Your task to perform on an android device: Show me popular games on the Play Store Image 0: 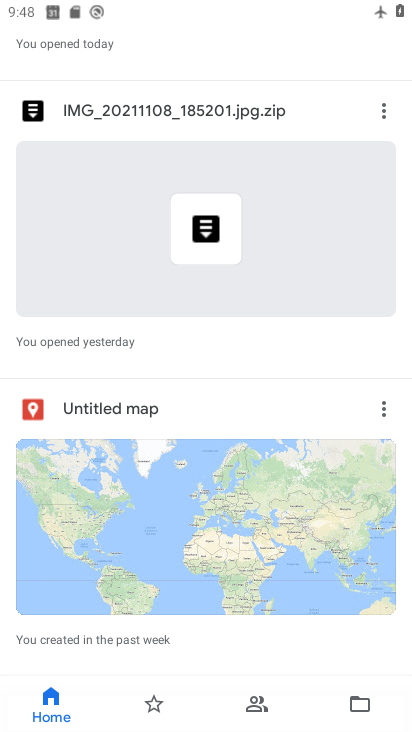
Step 0: drag from (219, 527) to (290, 138)
Your task to perform on an android device: Show me popular games on the Play Store Image 1: 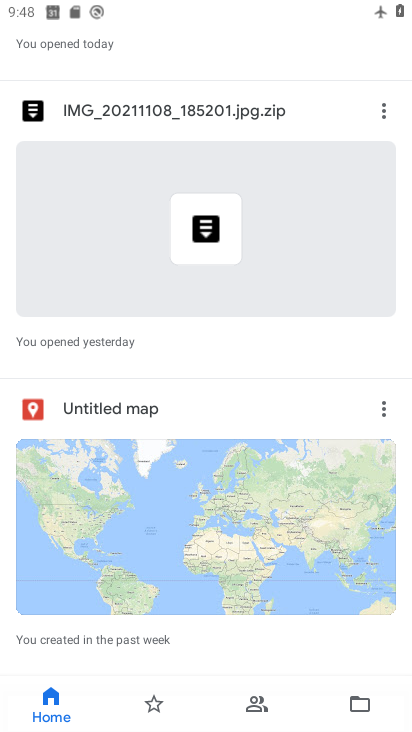
Step 1: press home button
Your task to perform on an android device: Show me popular games on the Play Store Image 2: 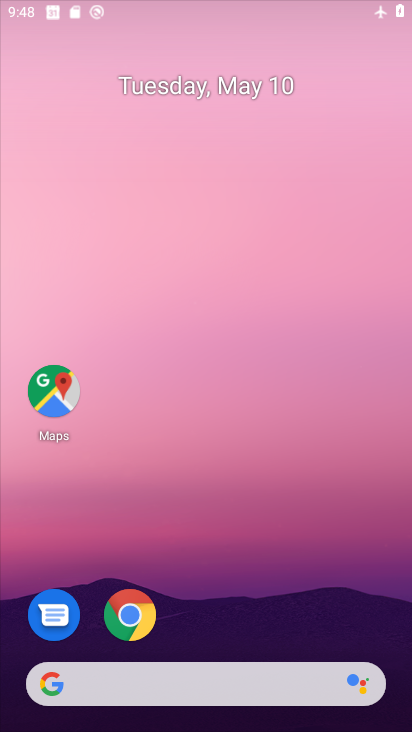
Step 2: drag from (186, 563) to (282, 92)
Your task to perform on an android device: Show me popular games on the Play Store Image 3: 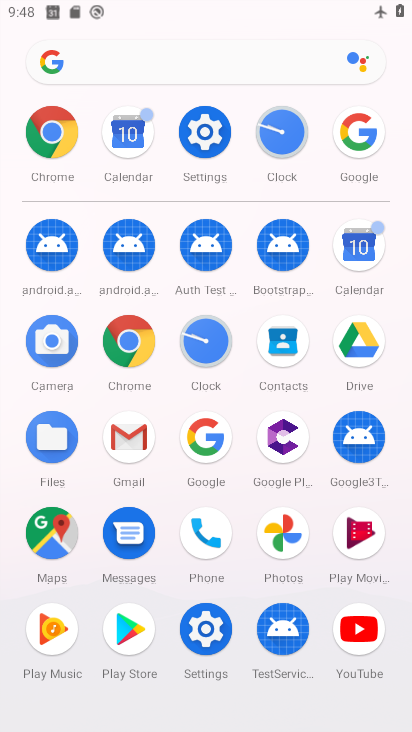
Step 3: click (136, 622)
Your task to perform on an android device: Show me popular games on the Play Store Image 4: 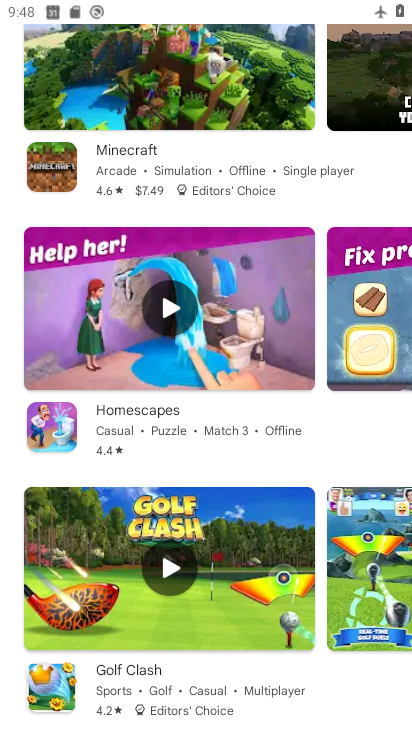
Step 4: task complete